Your task to perform on an android device: turn off smart reply in the gmail app Image 0: 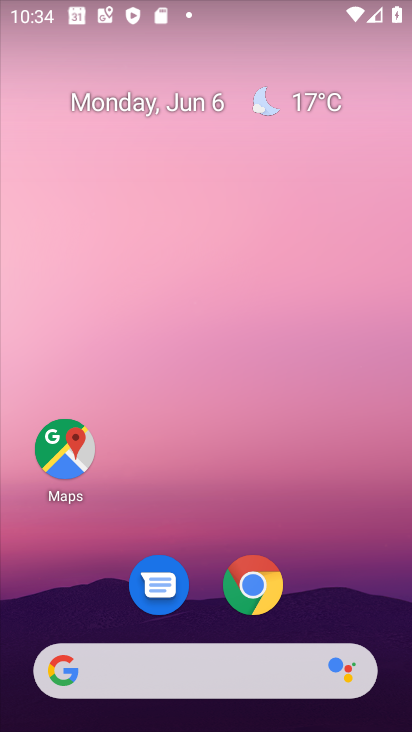
Step 0: drag from (226, 502) to (202, 11)
Your task to perform on an android device: turn off smart reply in the gmail app Image 1: 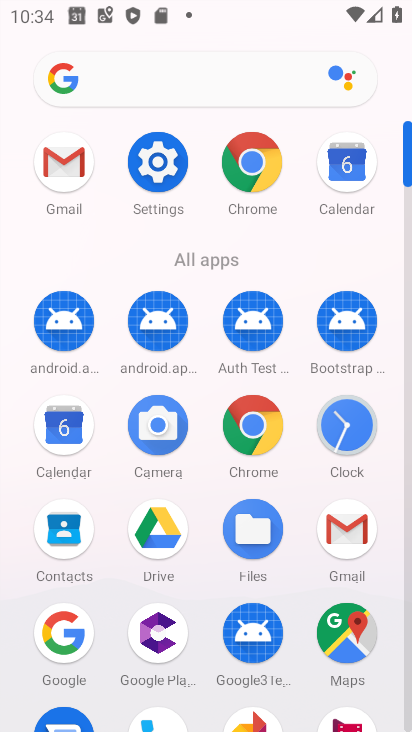
Step 1: click (77, 164)
Your task to perform on an android device: turn off smart reply in the gmail app Image 2: 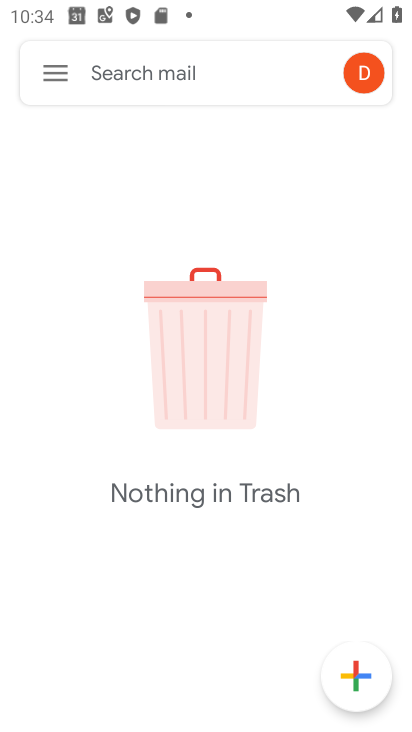
Step 2: click (47, 59)
Your task to perform on an android device: turn off smart reply in the gmail app Image 3: 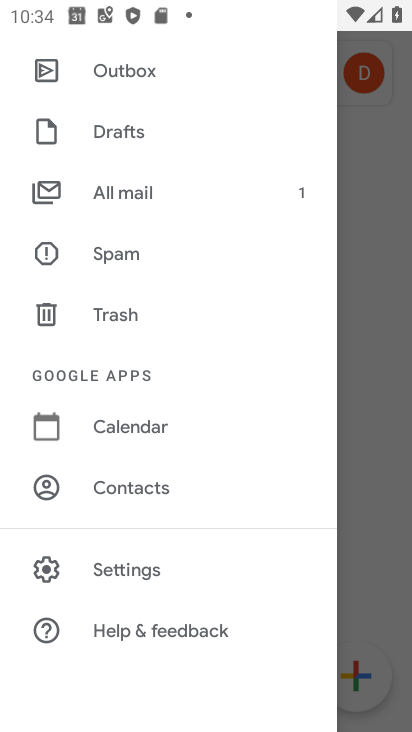
Step 3: click (146, 570)
Your task to perform on an android device: turn off smart reply in the gmail app Image 4: 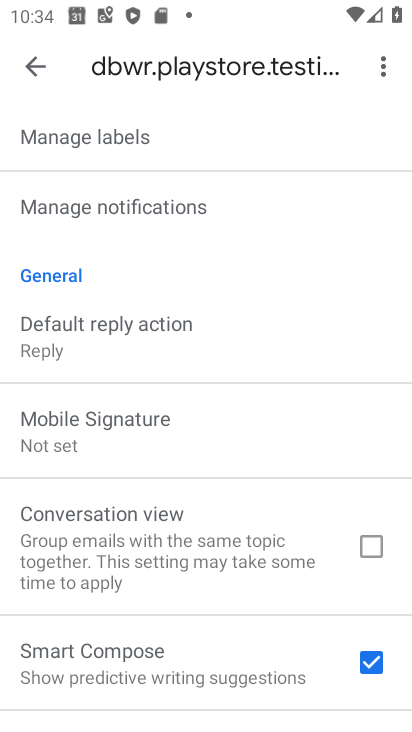
Step 4: task complete